Your task to perform on an android device: Show me recent news Image 0: 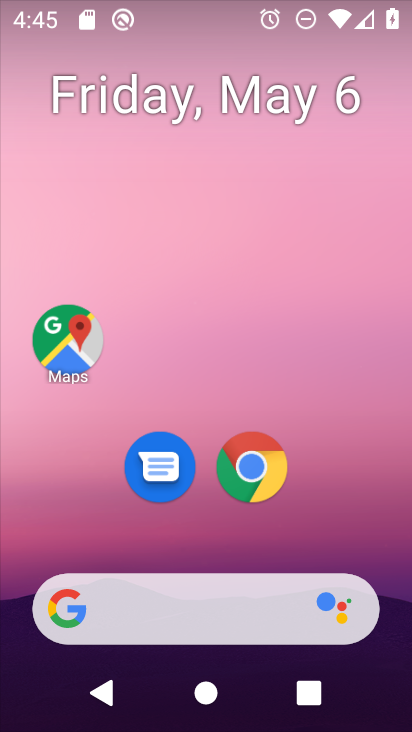
Step 0: drag from (362, 508) to (327, 6)
Your task to perform on an android device: Show me recent news Image 1: 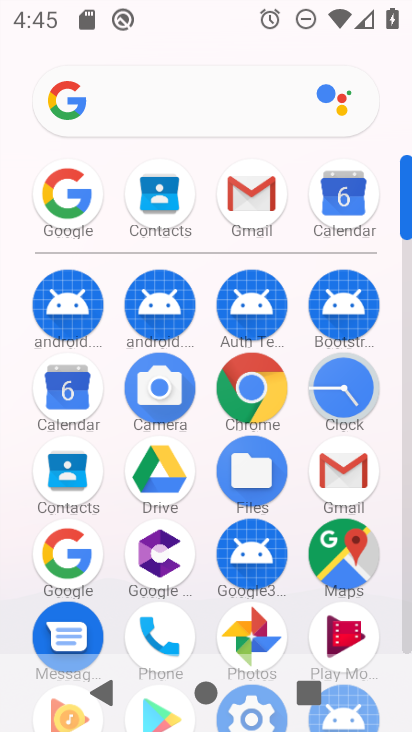
Step 1: drag from (292, 630) to (297, 257)
Your task to perform on an android device: Show me recent news Image 2: 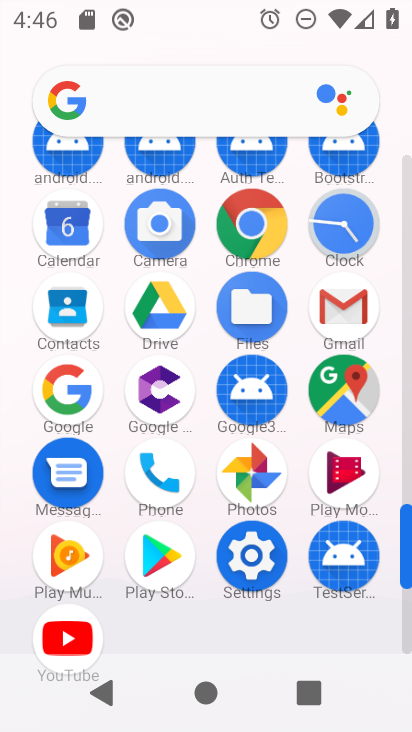
Step 2: click (70, 386)
Your task to perform on an android device: Show me recent news Image 3: 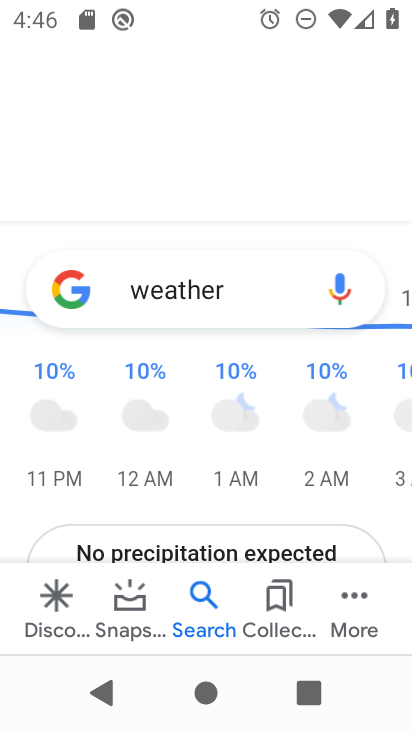
Step 3: click (245, 272)
Your task to perform on an android device: Show me recent news Image 4: 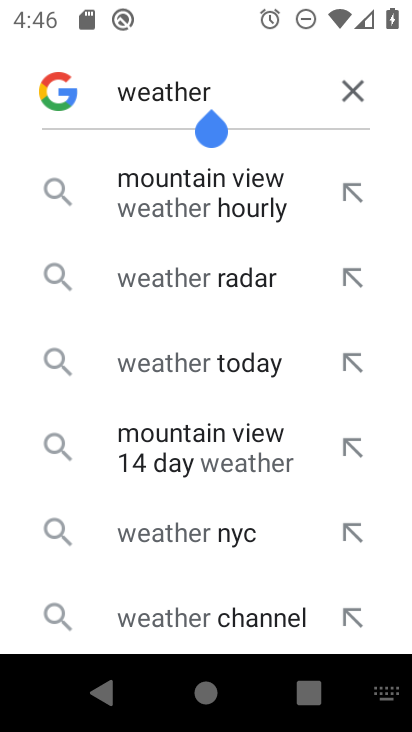
Step 4: click (344, 92)
Your task to perform on an android device: Show me recent news Image 5: 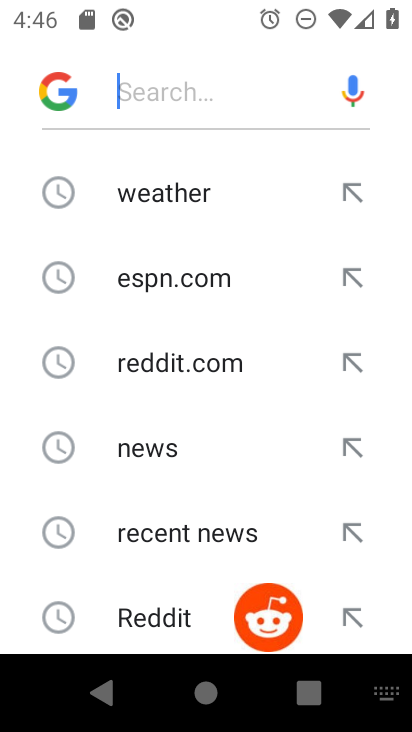
Step 5: click (178, 92)
Your task to perform on an android device: Show me recent news Image 6: 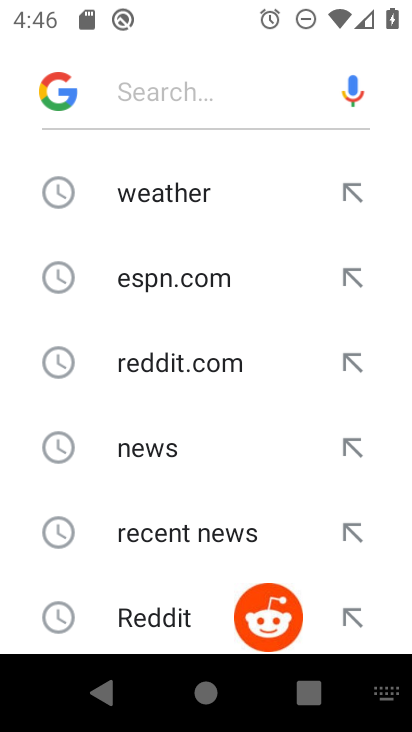
Step 6: click (161, 442)
Your task to perform on an android device: Show me recent news Image 7: 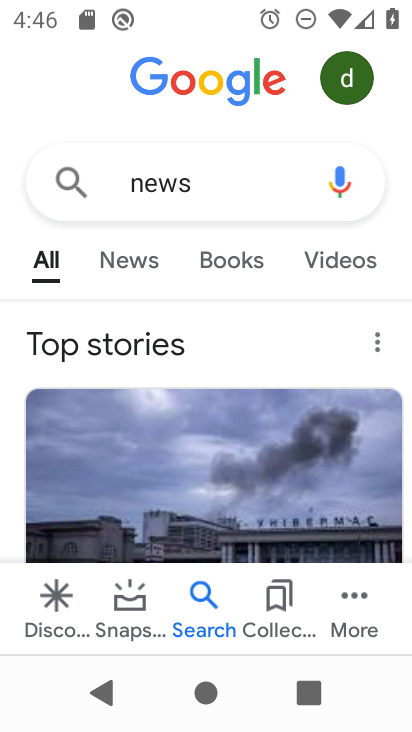
Step 7: click (217, 180)
Your task to perform on an android device: Show me recent news Image 8: 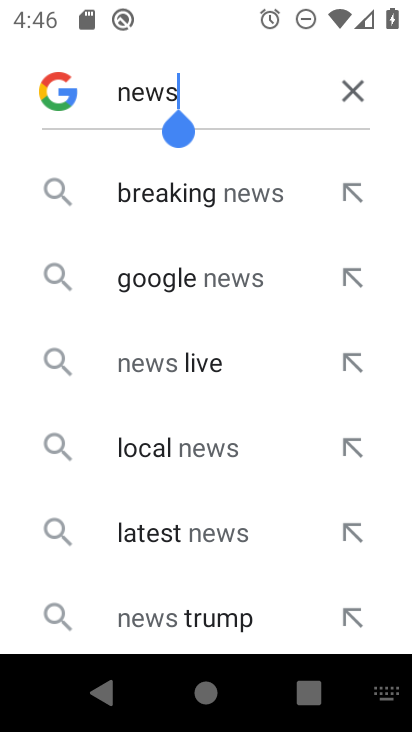
Step 8: click (359, 88)
Your task to perform on an android device: Show me recent news Image 9: 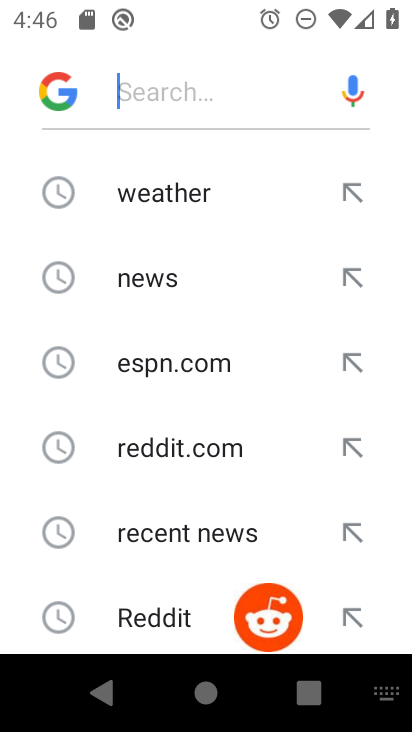
Step 9: click (149, 87)
Your task to perform on an android device: Show me recent news Image 10: 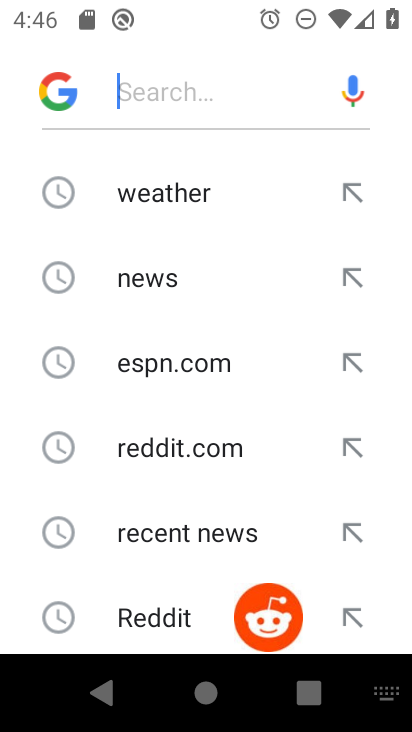
Step 10: click (173, 527)
Your task to perform on an android device: Show me recent news Image 11: 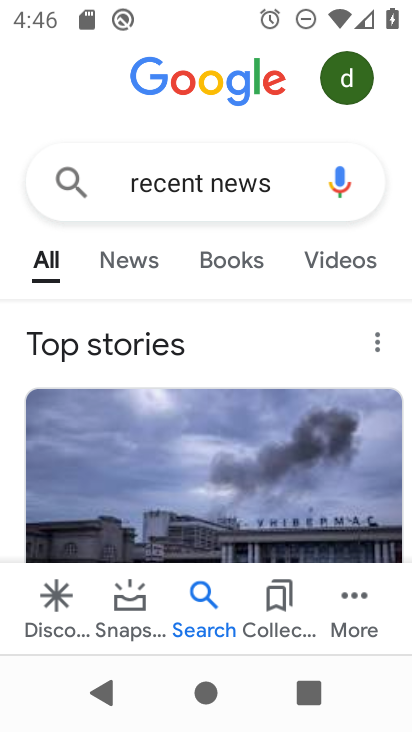
Step 11: task complete